Your task to perform on an android device: Open CNN.com Image 0: 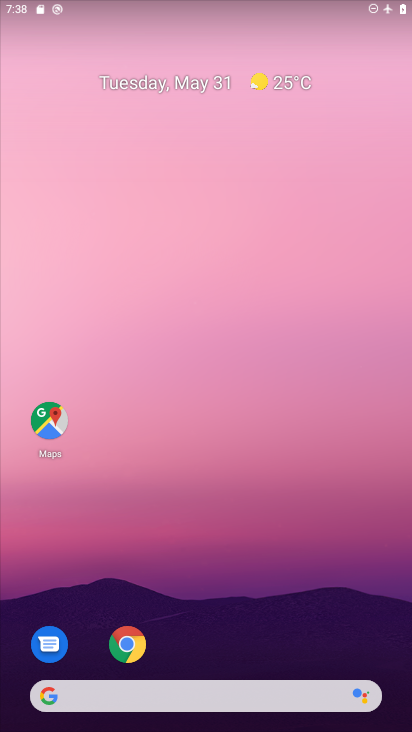
Step 0: drag from (184, 709) to (192, 256)
Your task to perform on an android device: Open CNN.com Image 1: 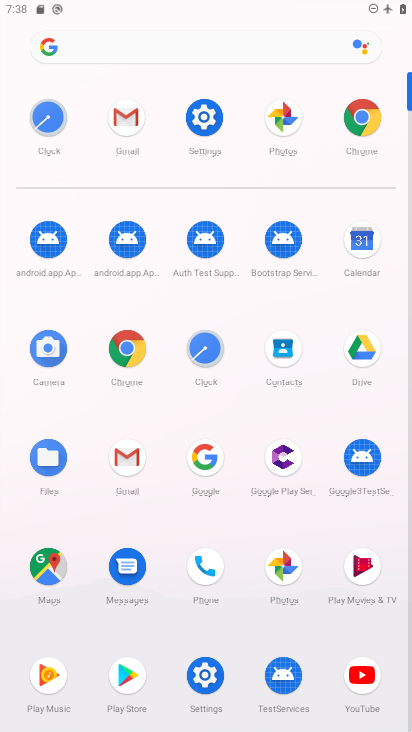
Step 1: click (364, 114)
Your task to perform on an android device: Open CNN.com Image 2: 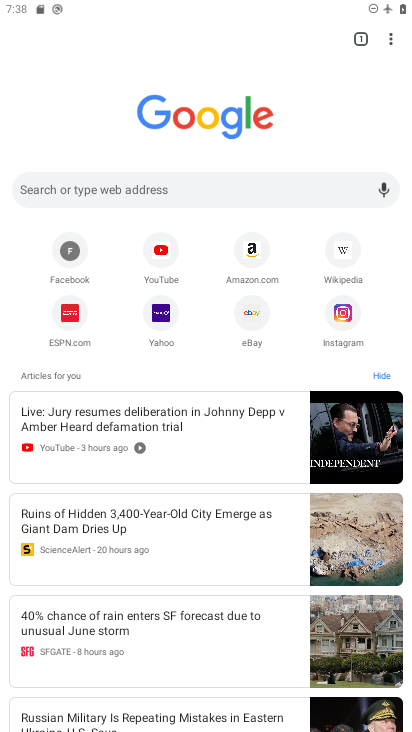
Step 2: click (154, 184)
Your task to perform on an android device: Open CNN.com Image 3: 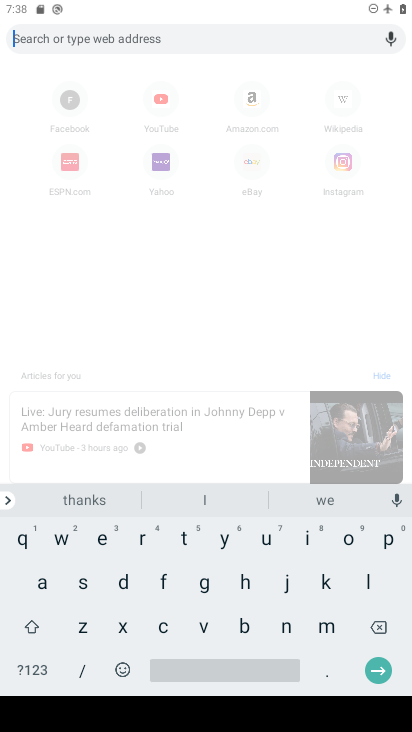
Step 3: click (163, 625)
Your task to perform on an android device: Open CNN.com Image 4: 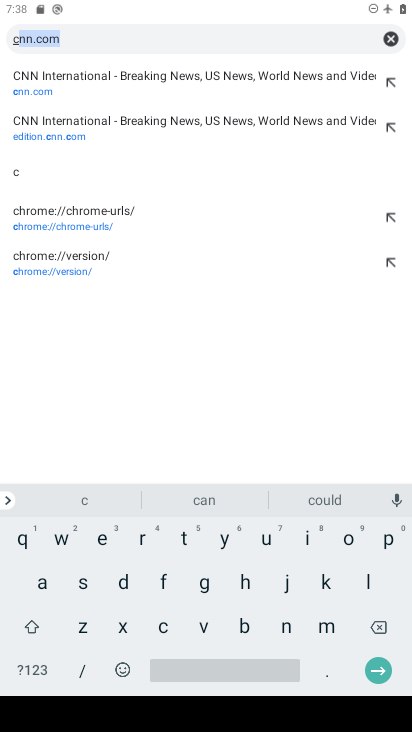
Step 4: click (137, 36)
Your task to perform on an android device: Open CNN.com Image 5: 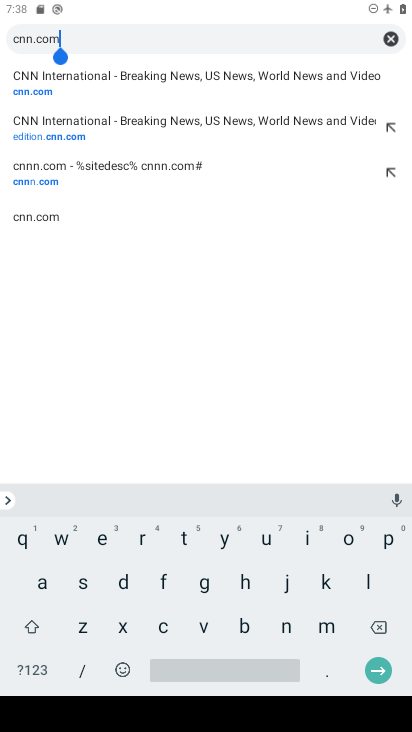
Step 5: click (380, 673)
Your task to perform on an android device: Open CNN.com Image 6: 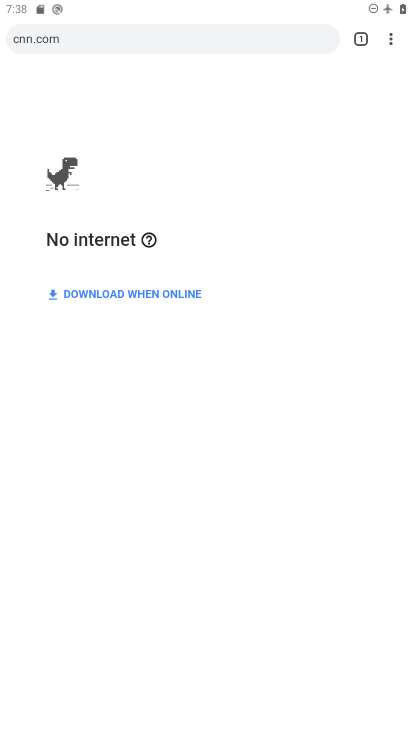
Step 6: press home button
Your task to perform on an android device: Open CNN.com Image 7: 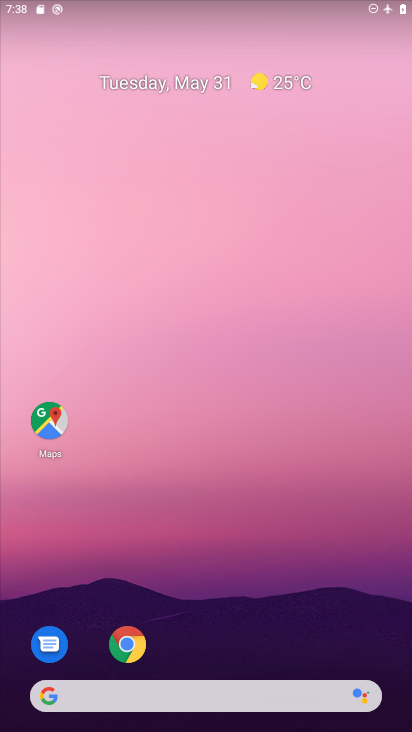
Step 7: drag from (235, 715) to (225, 221)
Your task to perform on an android device: Open CNN.com Image 8: 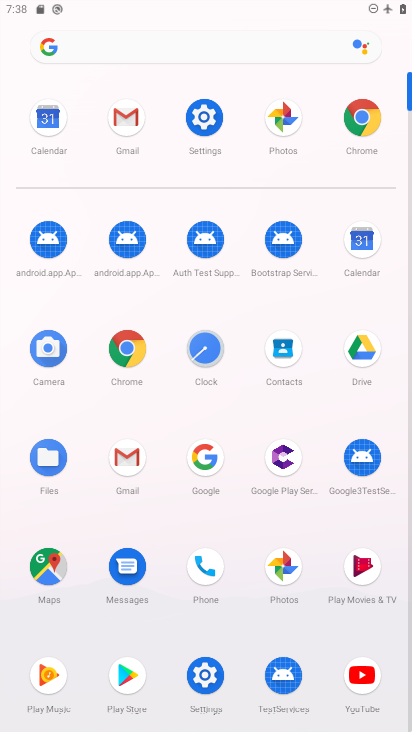
Step 8: click (201, 117)
Your task to perform on an android device: Open CNN.com Image 9: 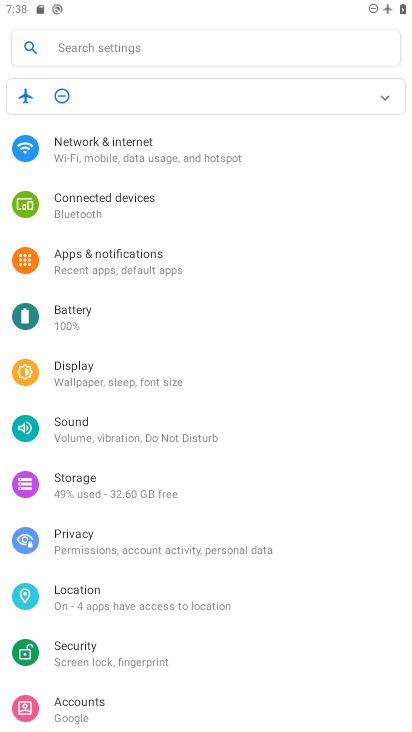
Step 9: click (390, 101)
Your task to perform on an android device: Open CNN.com Image 10: 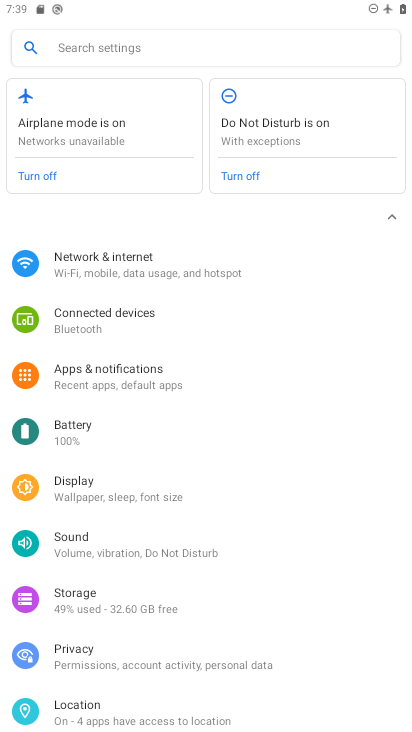
Step 10: click (59, 103)
Your task to perform on an android device: Open CNN.com Image 11: 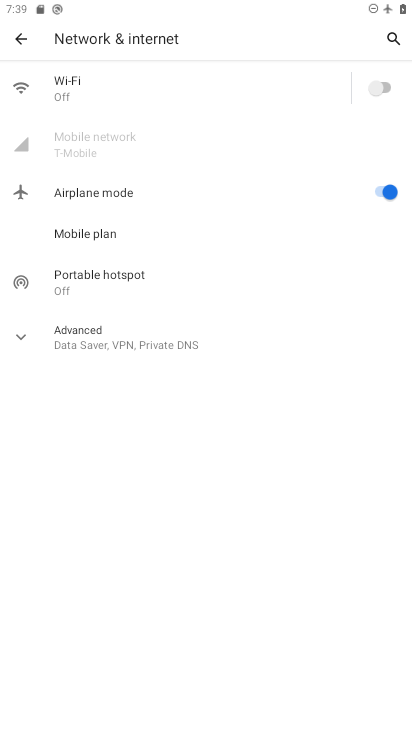
Step 11: click (377, 200)
Your task to perform on an android device: Open CNN.com Image 12: 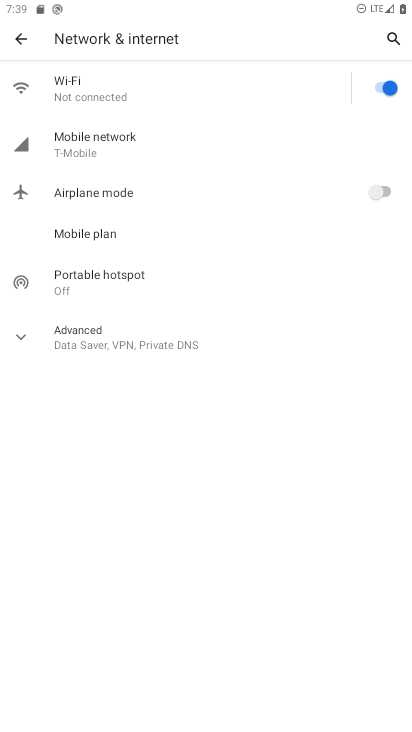
Step 12: press home button
Your task to perform on an android device: Open CNN.com Image 13: 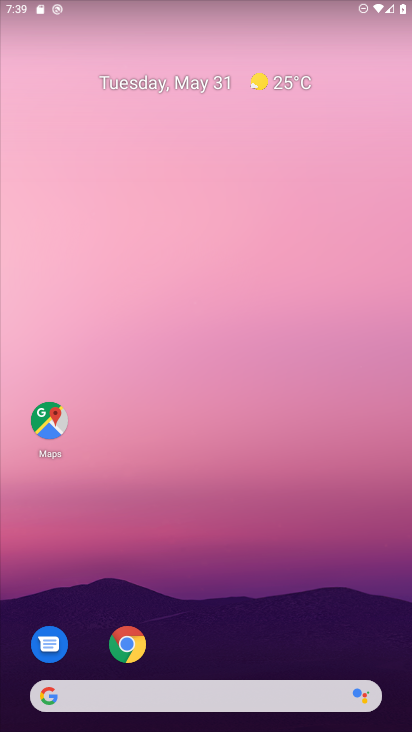
Step 13: drag from (207, 701) to (183, 171)
Your task to perform on an android device: Open CNN.com Image 14: 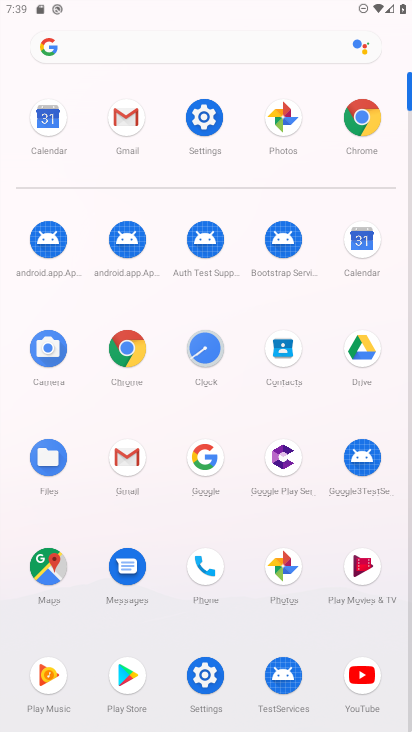
Step 14: click (352, 124)
Your task to perform on an android device: Open CNN.com Image 15: 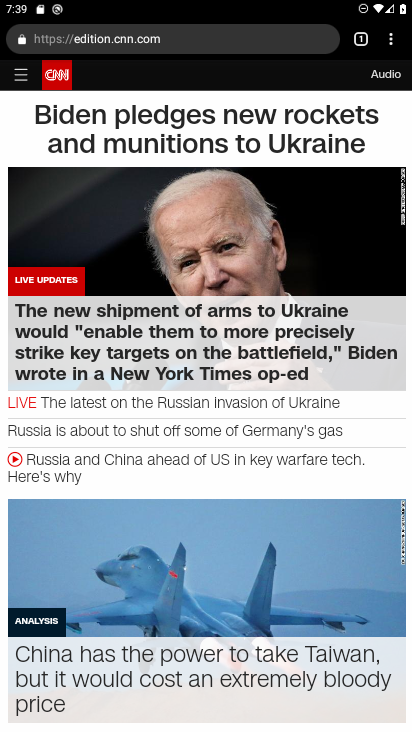
Step 15: task complete